Your task to perform on an android device: Add "usb-c to usb-b" to the cart on target.com Image 0: 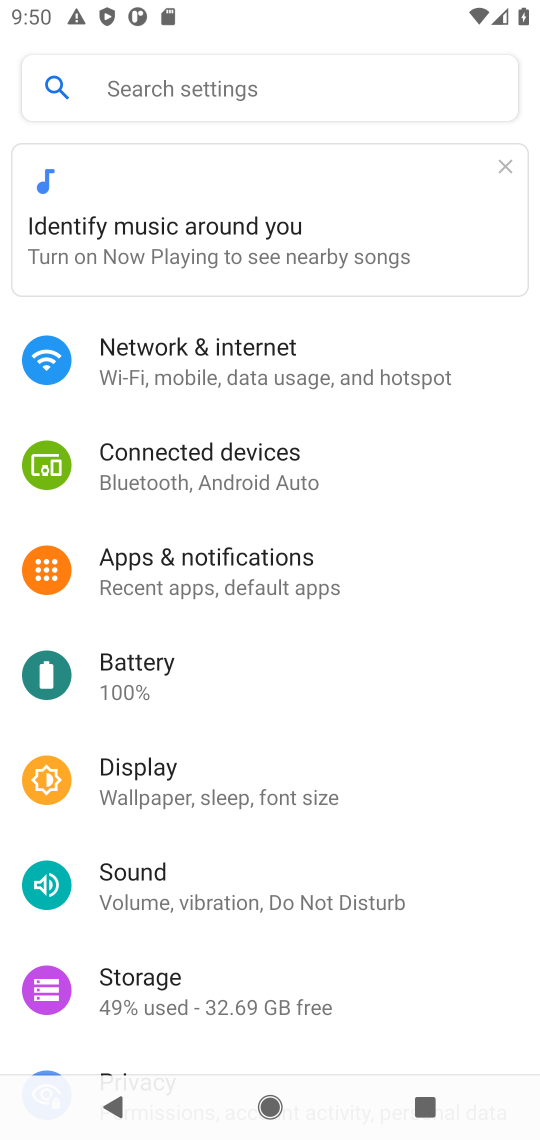
Step 0: press home button
Your task to perform on an android device: Add "usb-c to usb-b" to the cart on target.com Image 1: 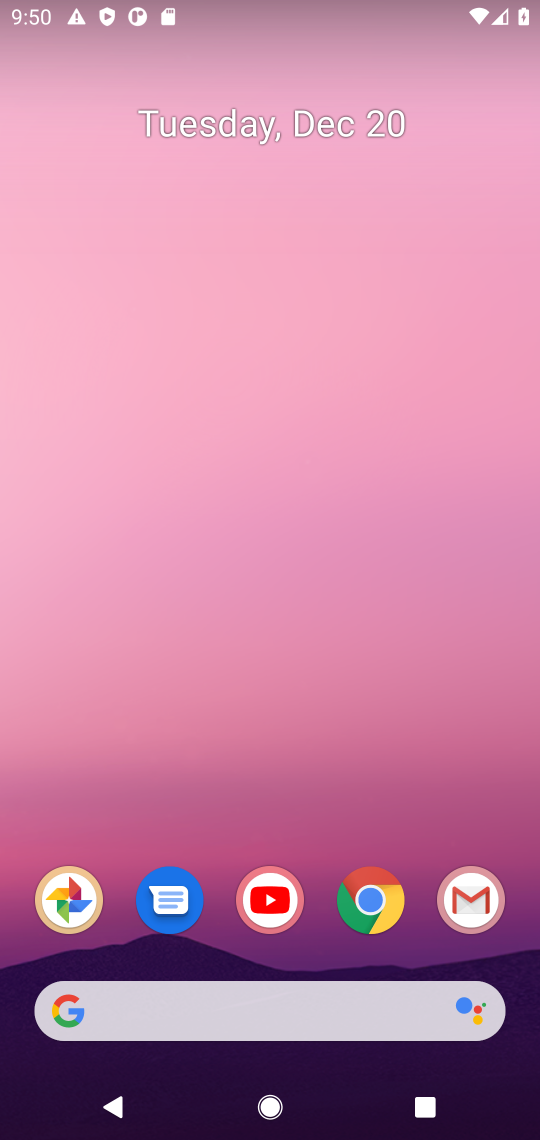
Step 1: click (372, 910)
Your task to perform on an android device: Add "usb-c to usb-b" to the cart on target.com Image 2: 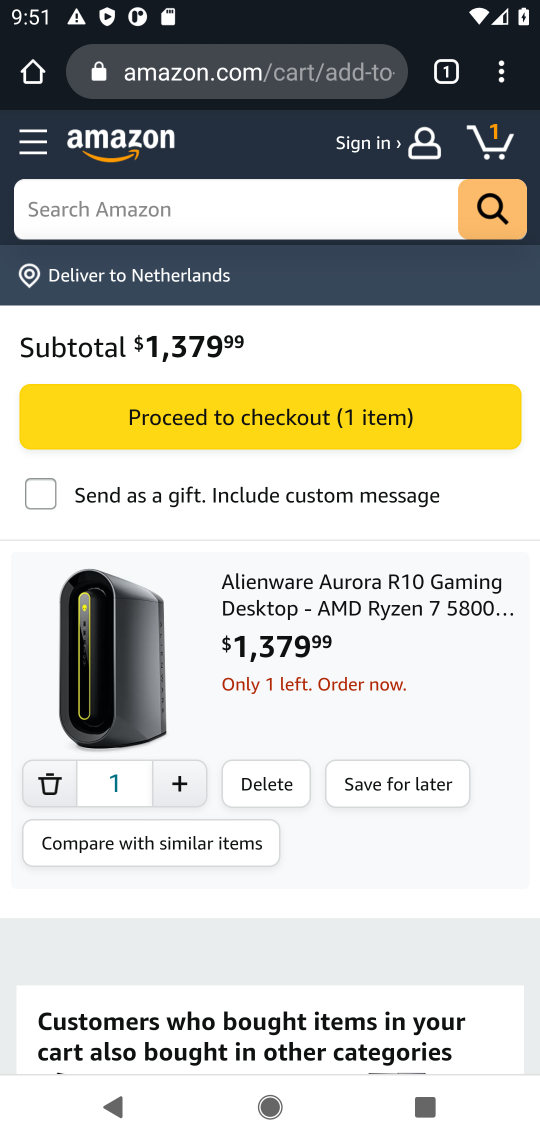
Step 2: click (157, 81)
Your task to perform on an android device: Add "usb-c to usb-b" to the cart on target.com Image 3: 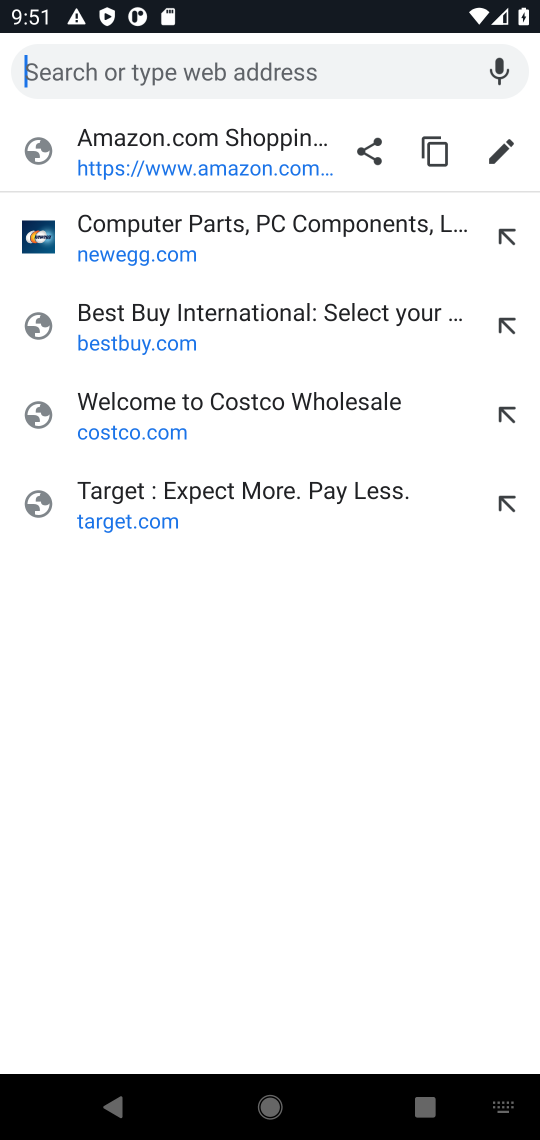
Step 3: click (124, 497)
Your task to perform on an android device: Add "usb-c to usb-b" to the cart on target.com Image 4: 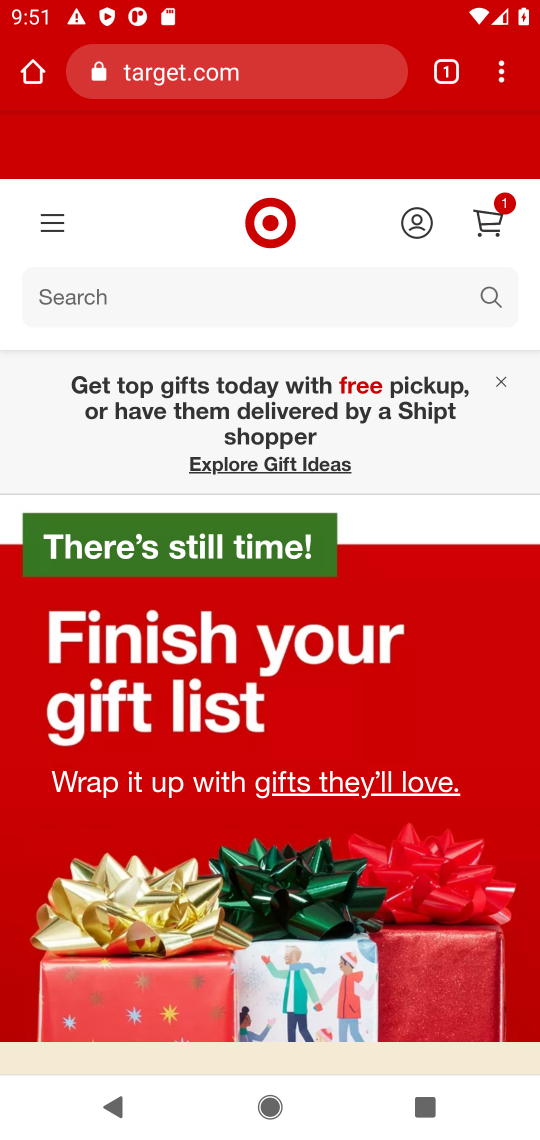
Step 4: click (62, 298)
Your task to perform on an android device: Add "usb-c to usb-b" to the cart on target.com Image 5: 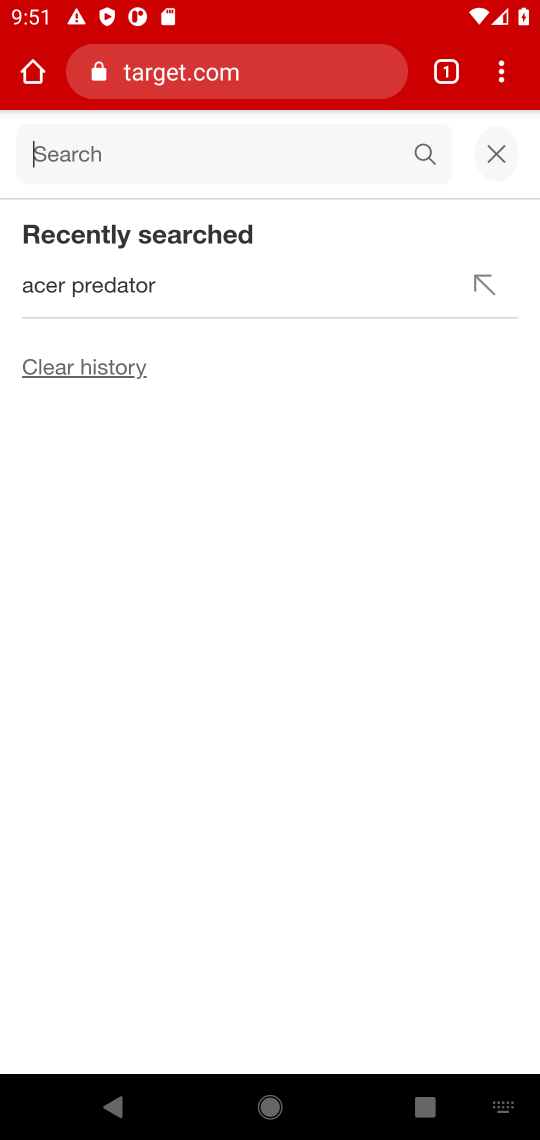
Step 5: type "usb-c to usb-b"
Your task to perform on an android device: Add "usb-c to usb-b" to the cart on target.com Image 6: 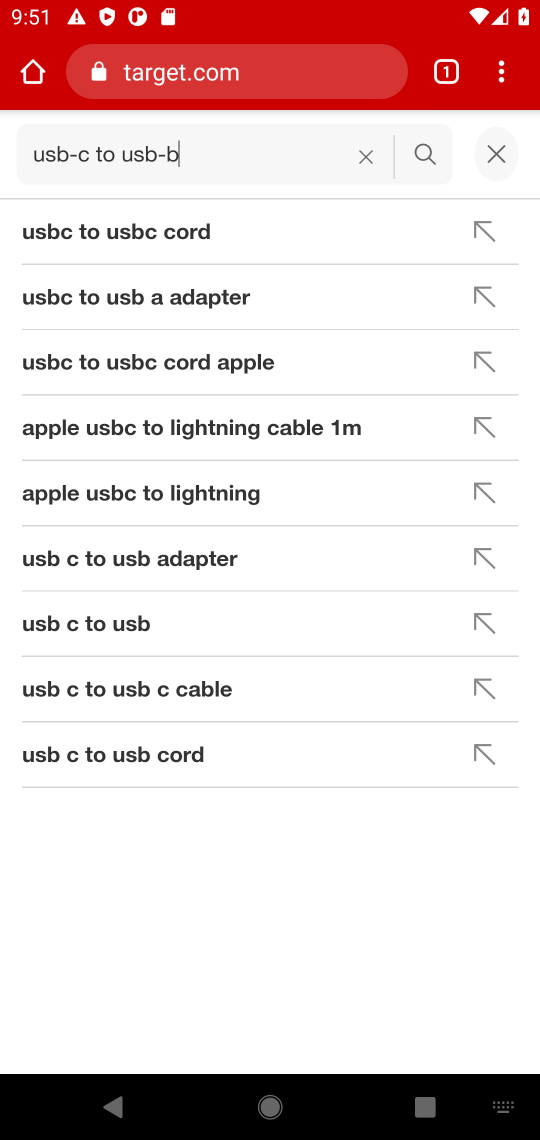
Step 6: click (419, 151)
Your task to perform on an android device: Add "usb-c to usb-b" to the cart on target.com Image 7: 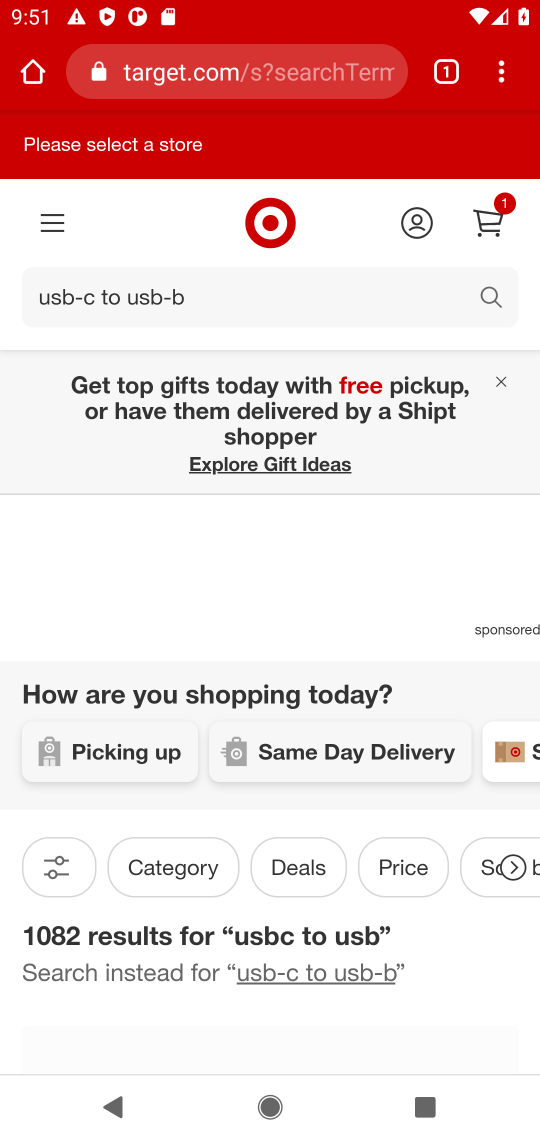
Step 7: drag from (181, 887) to (280, 368)
Your task to perform on an android device: Add "usb-c to usb-b" to the cart on target.com Image 8: 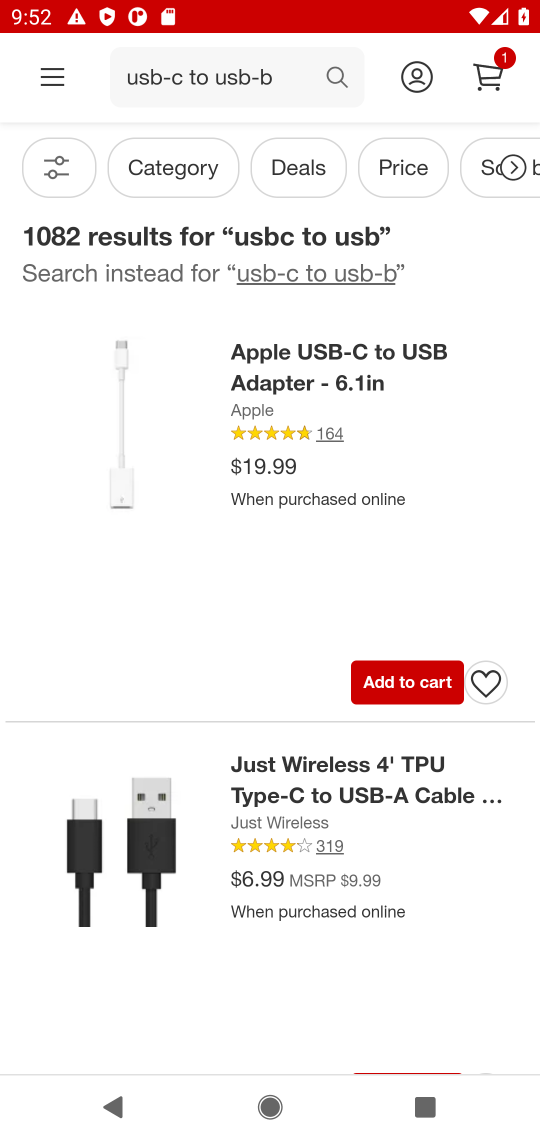
Step 8: drag from (225, 911) to (258, 484)
Your task to perform on an android device: Add "usb-c to usb-b" to the cart on target.com Image 9: 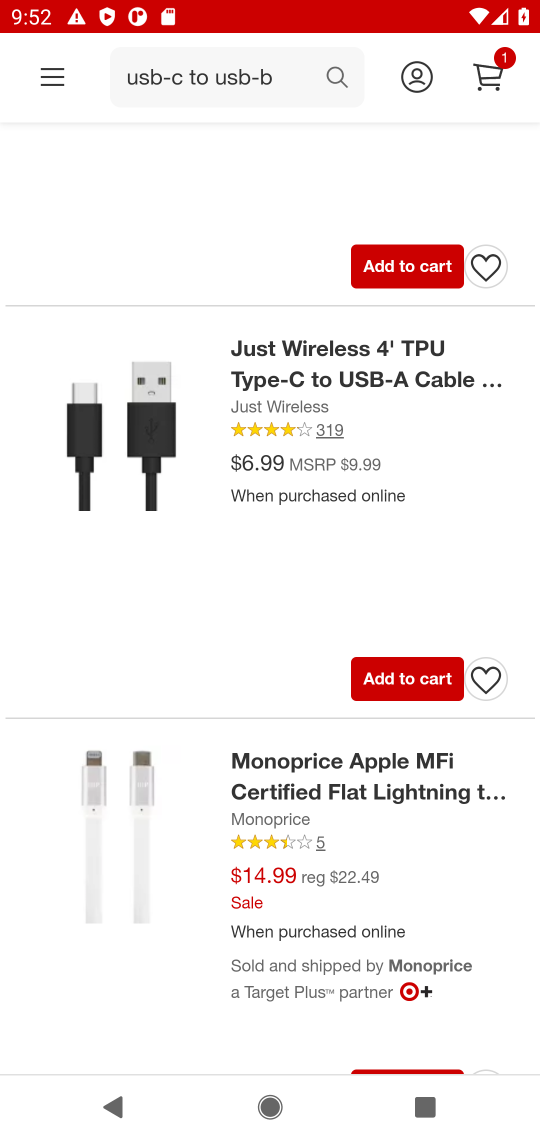
Step 9: drag from (213, 876) to (200, 385)
Your task to perform on an android device: Add "usb-c to usb-b" to the cart on target.com Image 10: 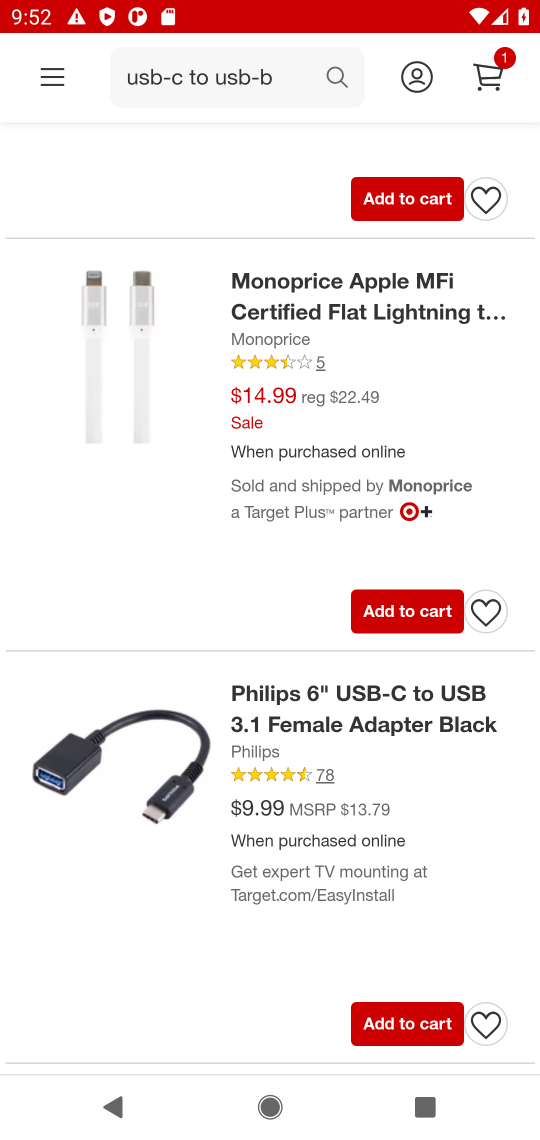
Step 10: drag from (220, 861) to (218, 350)
Your task to perform on an android device: Add "usb-c to usb-b" to the cart on target.com Image 11: 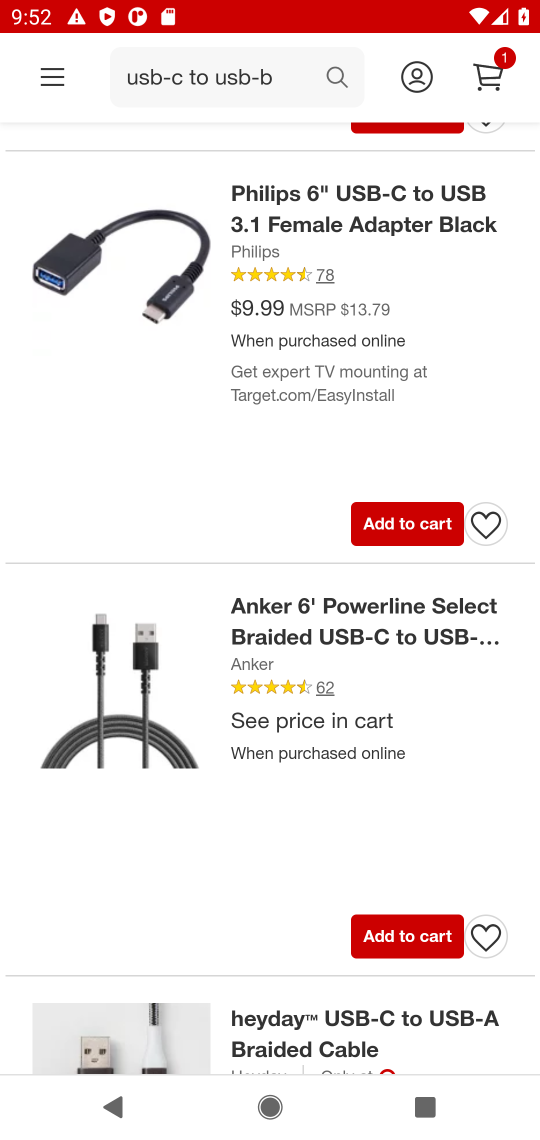
Step 11: click (257, 640)
Your task to perform on an android device: Add "usb-c to usb-b" to the cart on target.com Image 12: 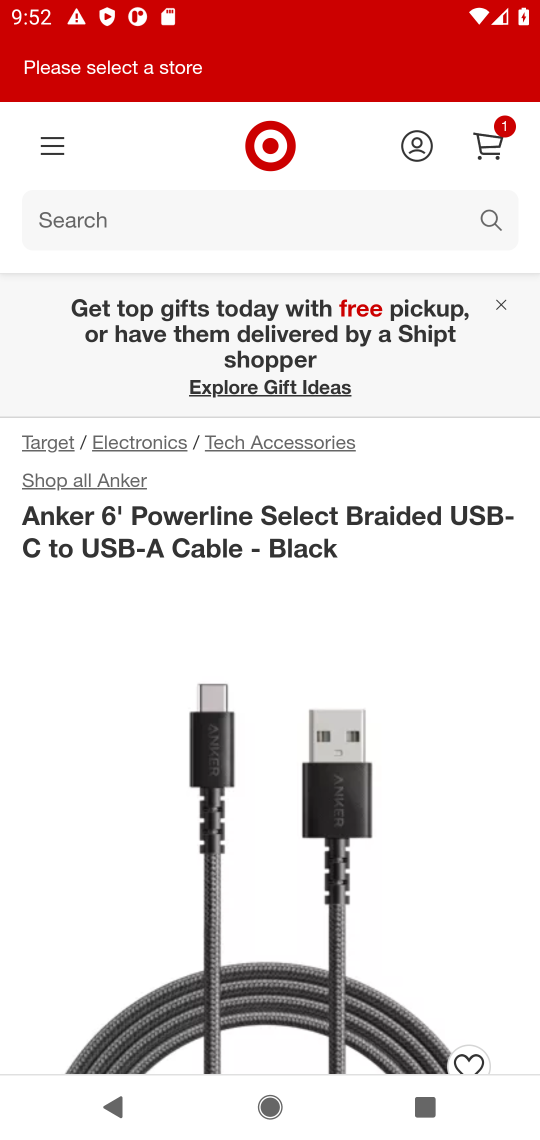
Step 12: task complete